Your task to perform on an android device: move a message to another label in the gmail app Image 0: 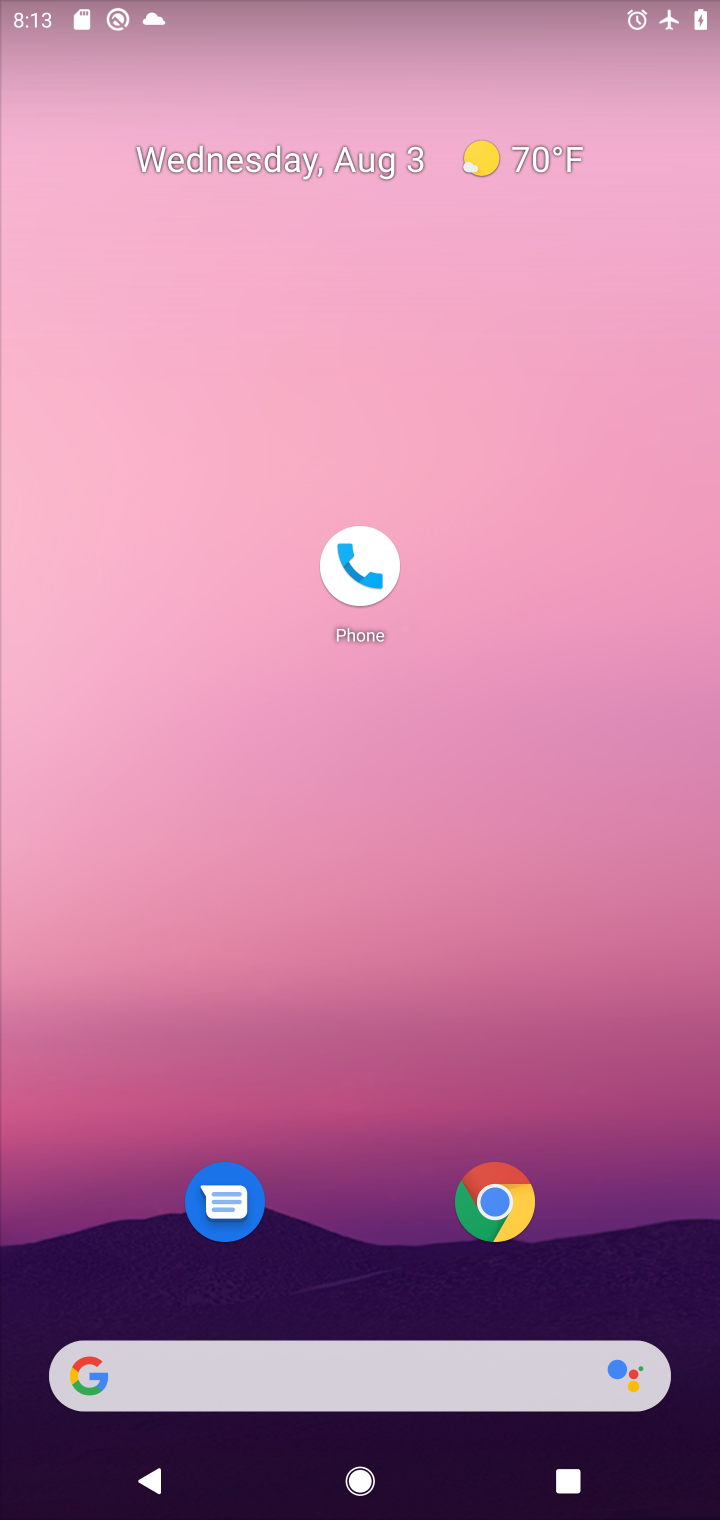
Step 0: drag from (364, 1365) to (686, 7)
Your task to perform on an android device: move a message to another label in the gmail app Image 1: 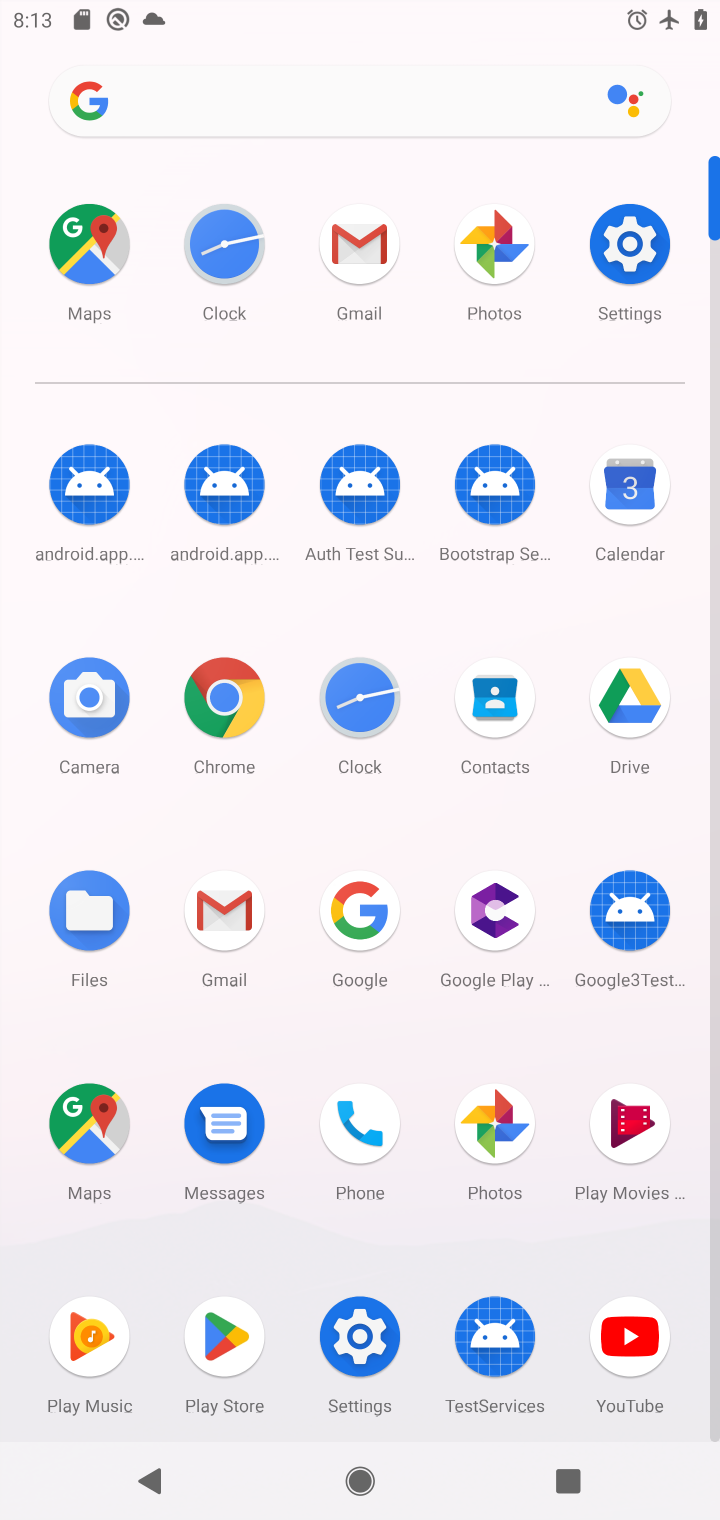
Step 1: click (363, 256)
Your task to perform on an android device: move a message to another label in the gmail app Image 2: 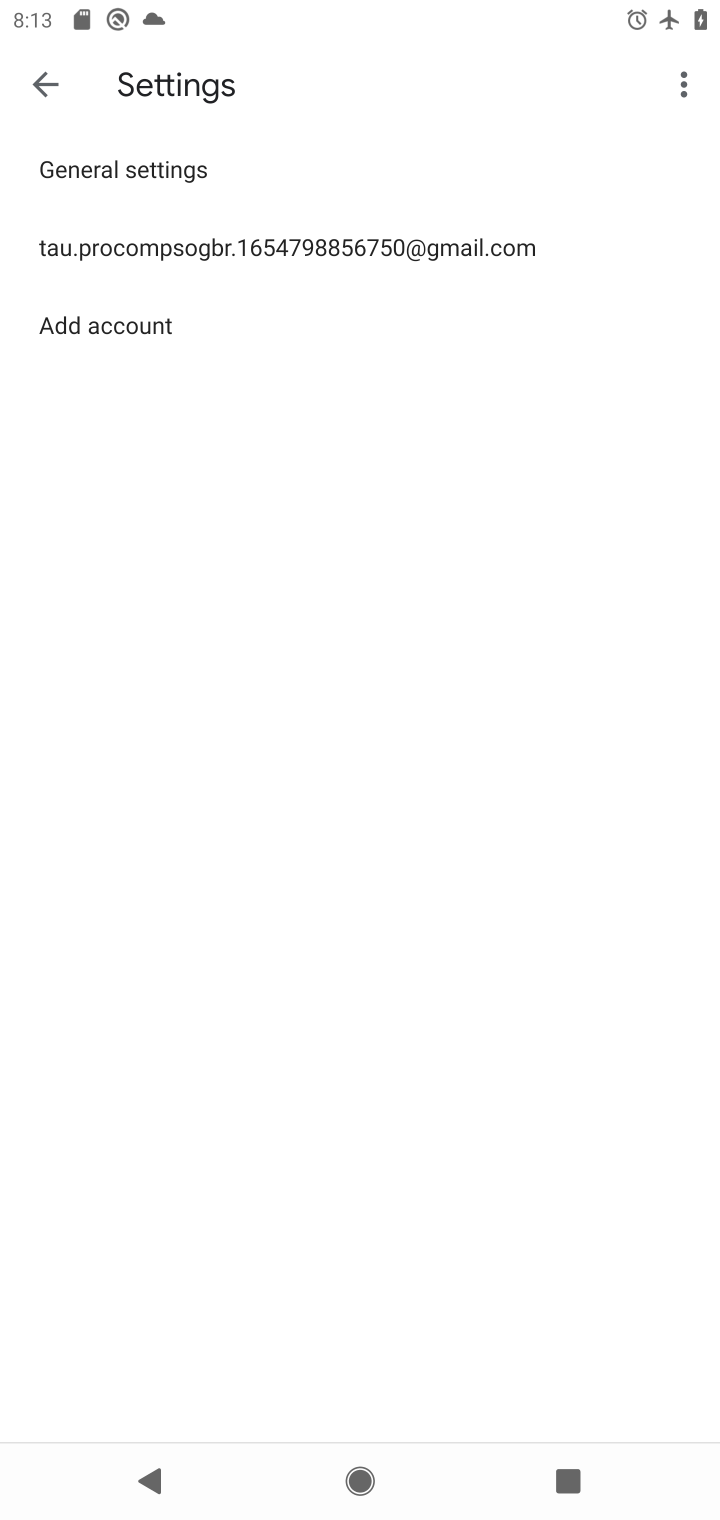
Step 2: press back button
Your task to perform on an android device: move a message to another label in the gmail app Image 3: 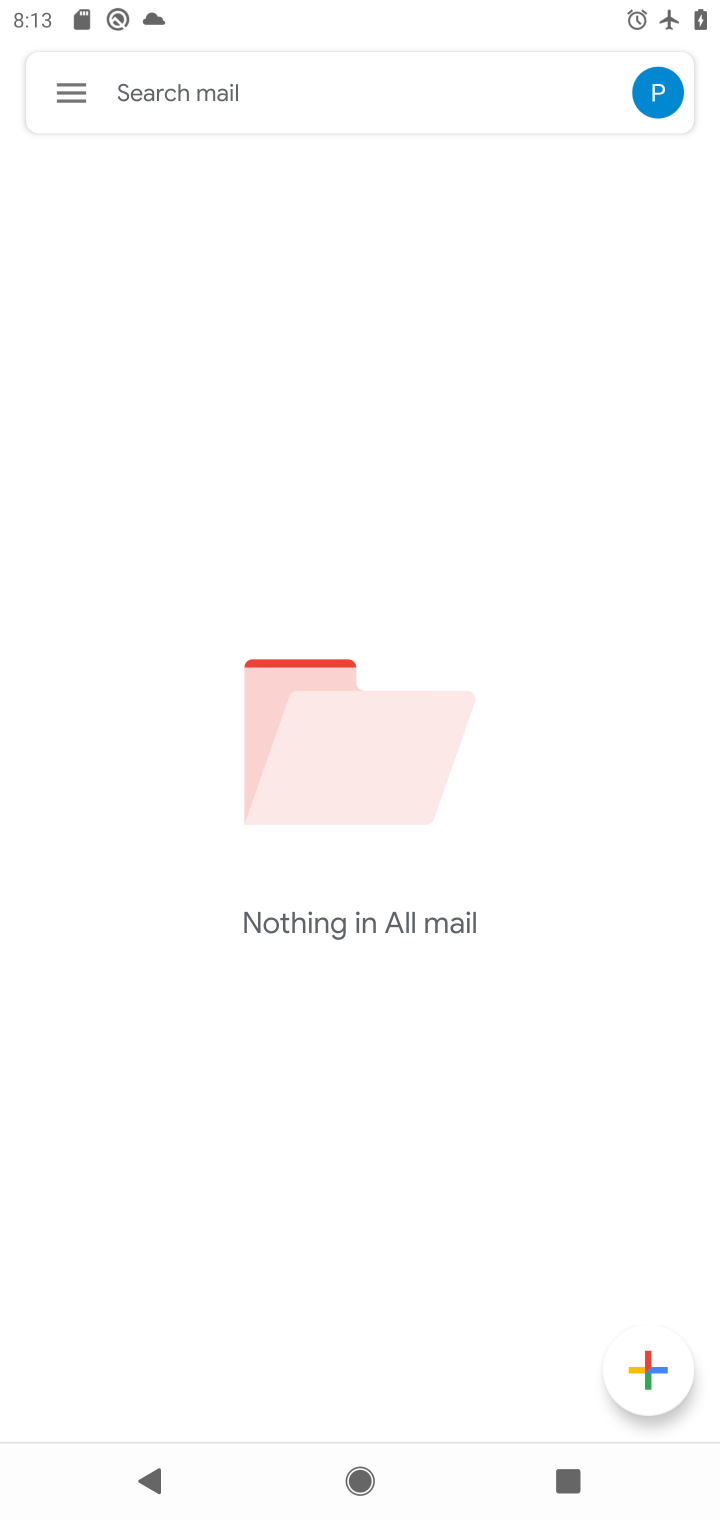
Step 3: click (50, 90)
Your task to perform on an android device: move a message to another label in the gmail app Image 4: 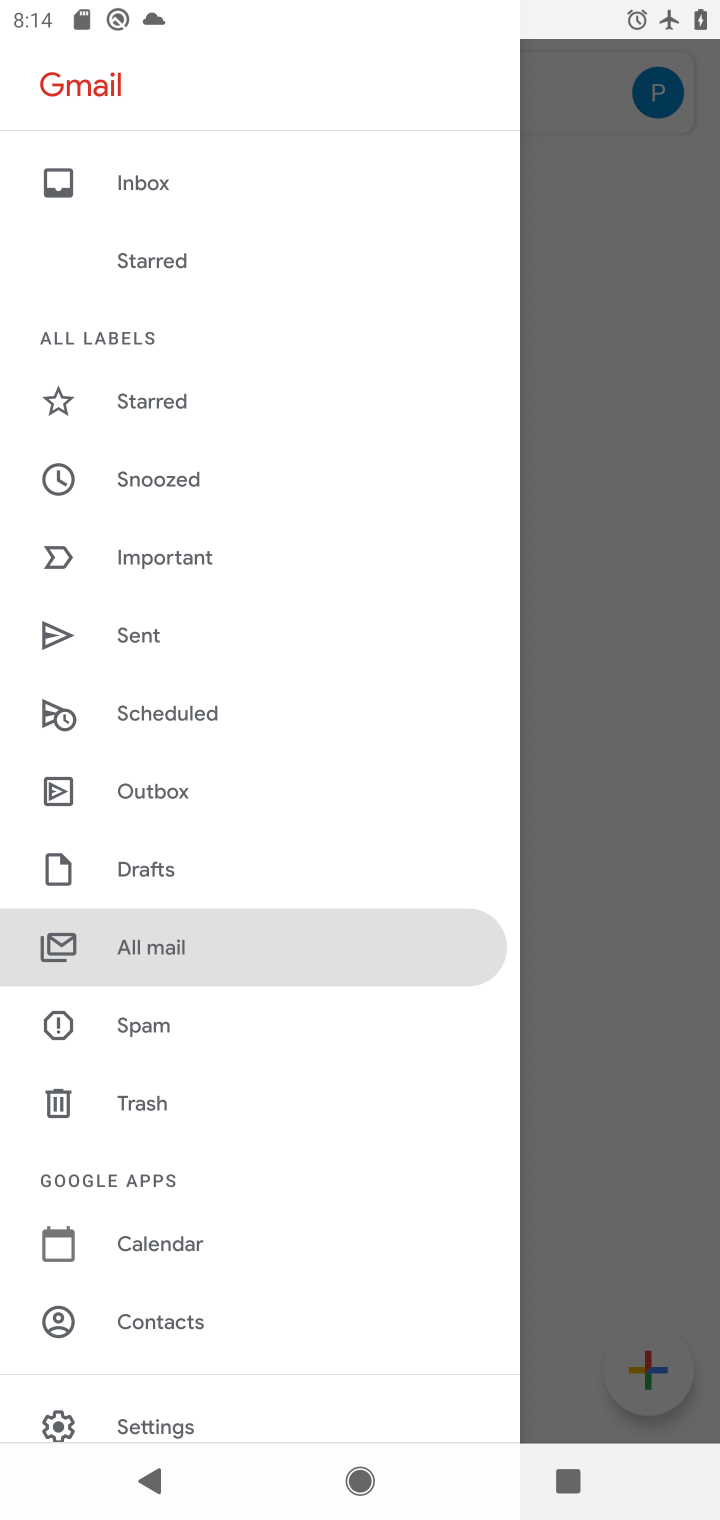
Step 4: click (129, 182)
Your task to perform on an android device: move a message to another label in the gmail app Image 5: 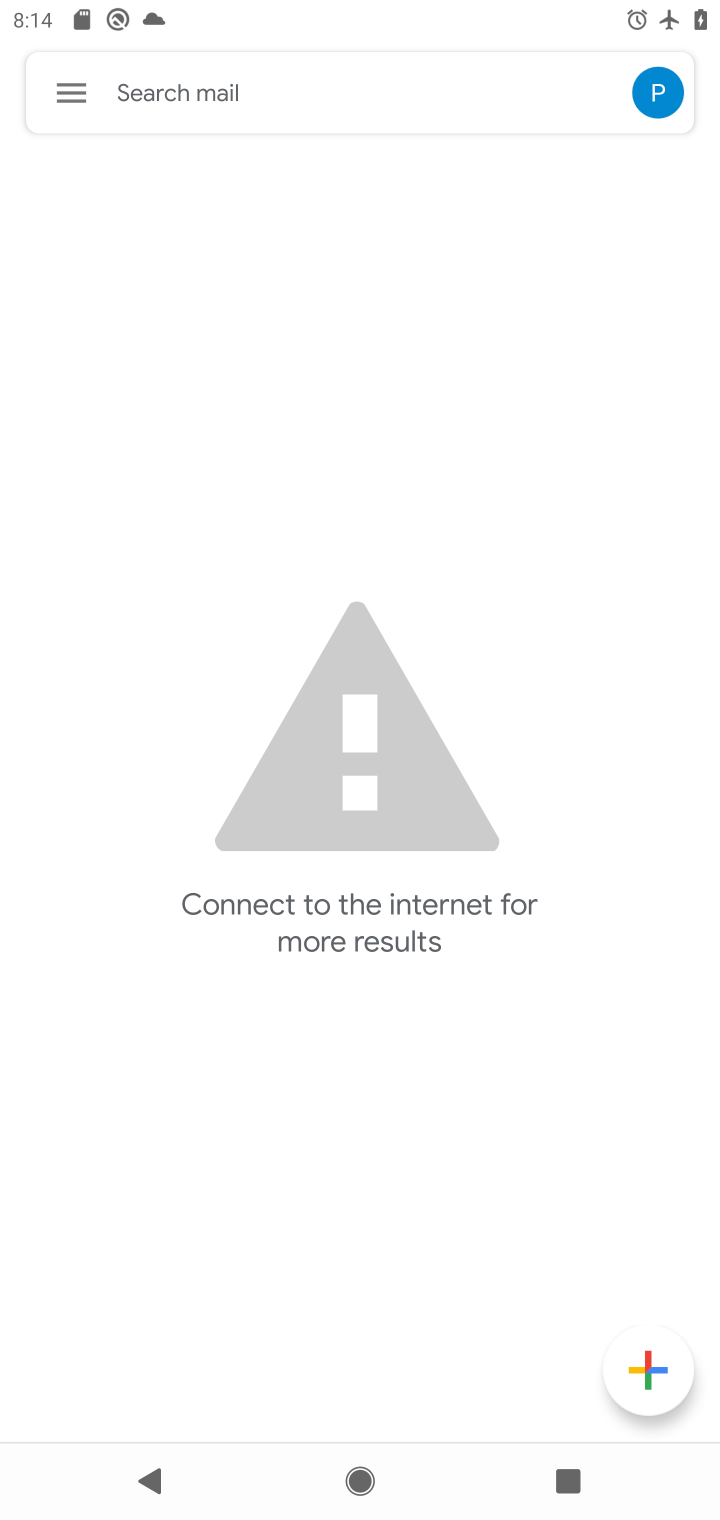
Step 5: click (77, 99)
Your task to perform on an android device: move a message to another label in the gmail app Image 6: 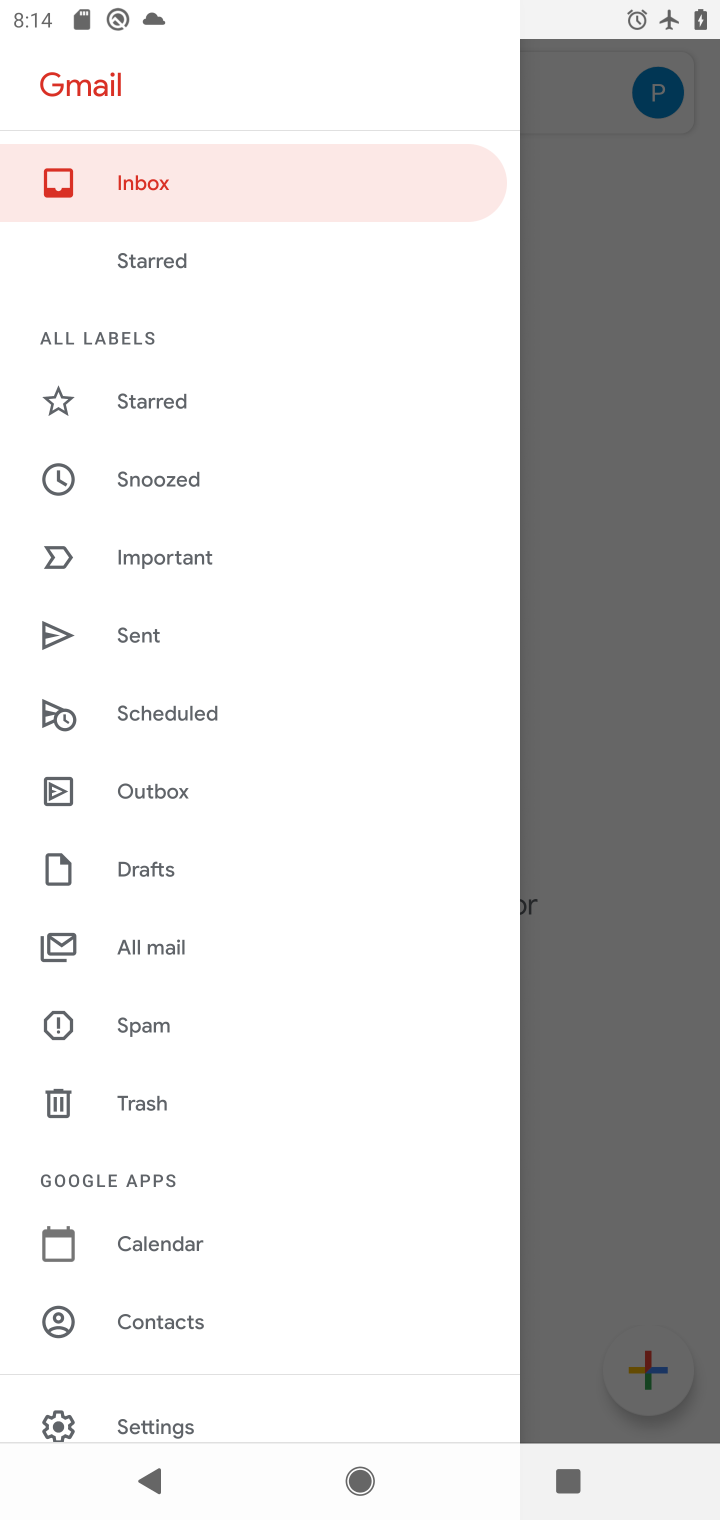
Step 6: click (174, 272)
Your task to perform on an android device: move a message to another label in the gmail app Image 7: 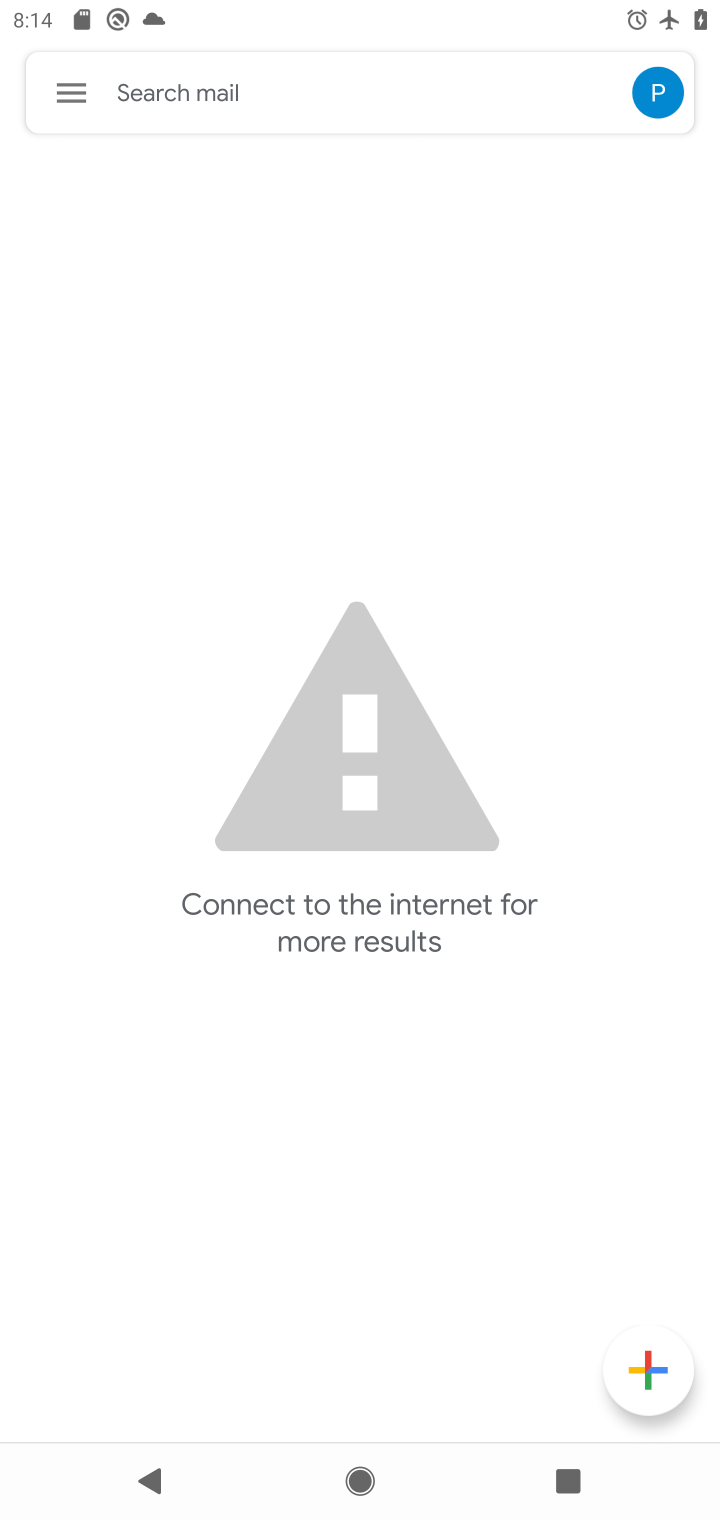
Step 7: task complete